Your task to perform on an android device: open app "DuckDuckGo Privacy Browser" Image 0: 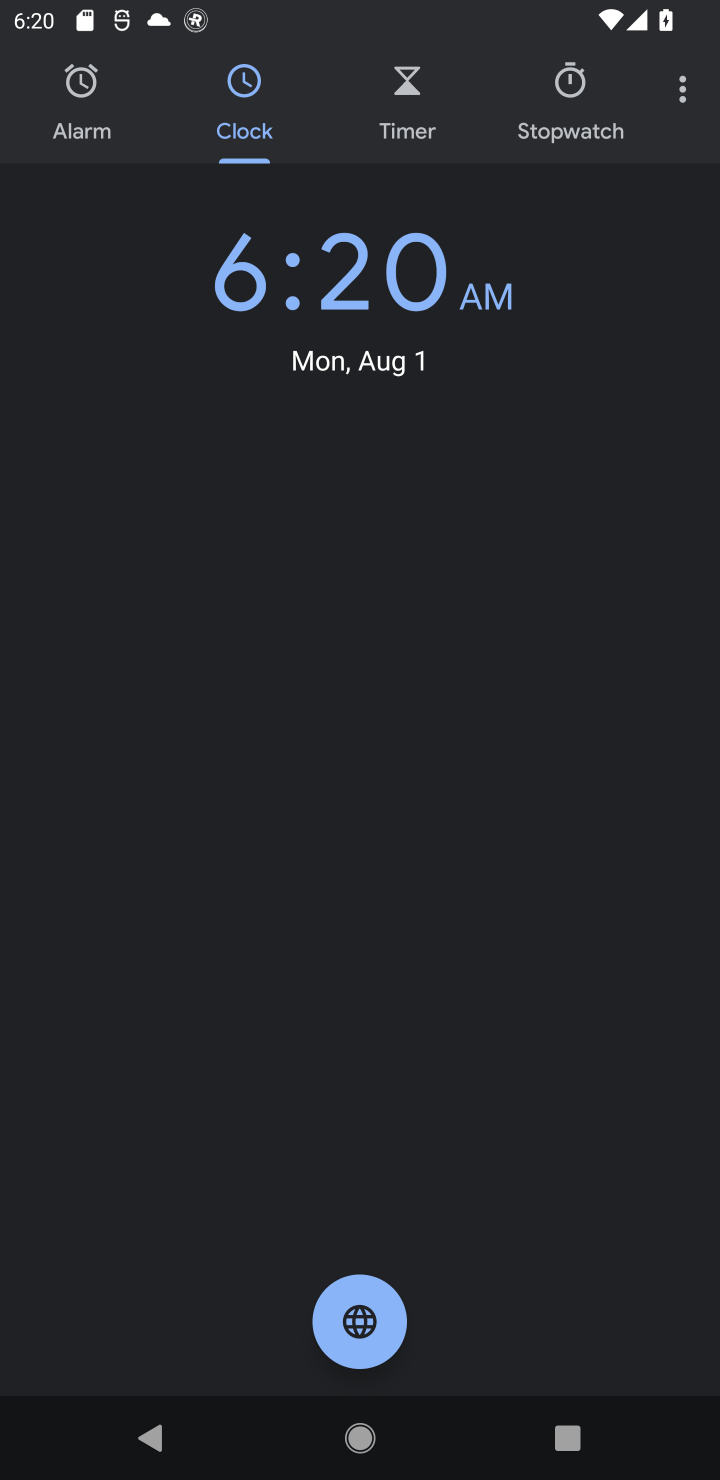
Step 0: press home button
Your task to perform on an android device: open app "DuckDuckGo Privacy Browser" Image 1: 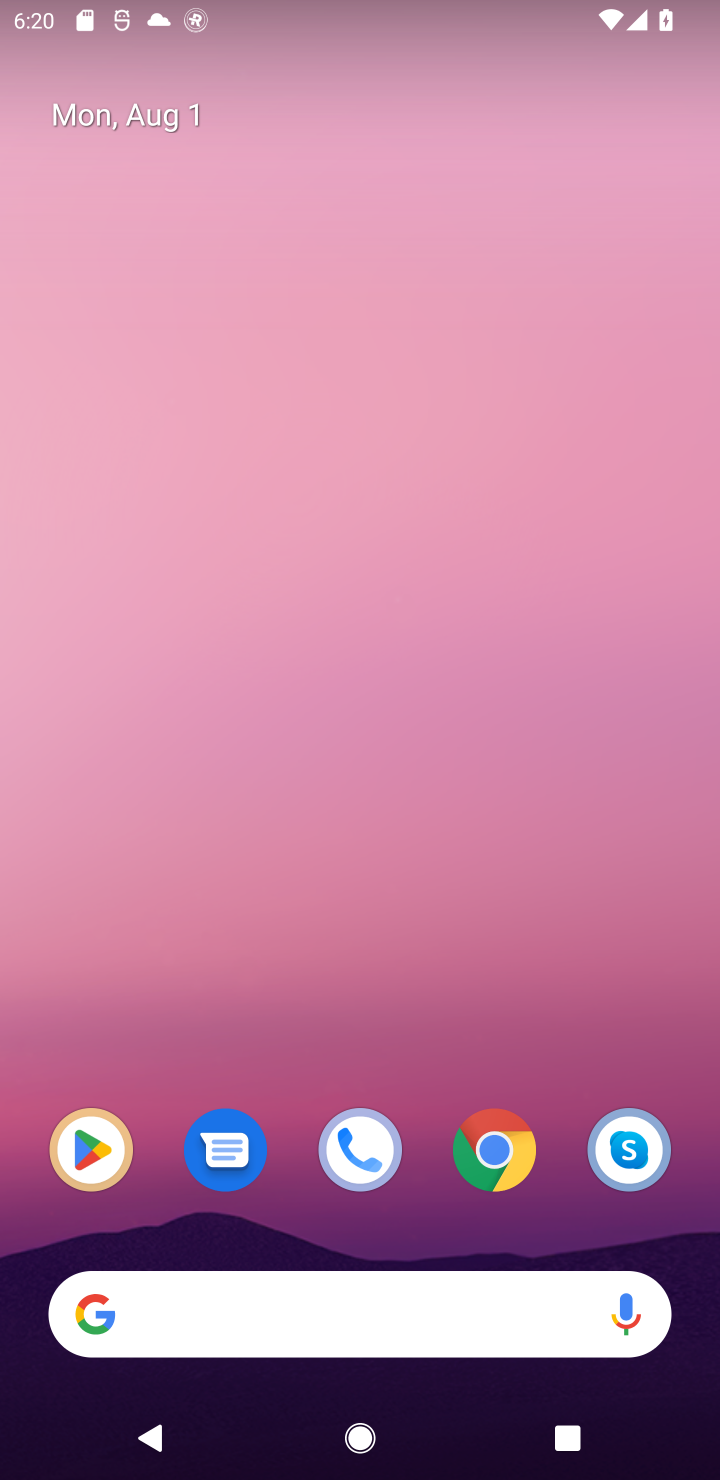
Step 1: drag from (296, 1252) to (414, 210)
Your task to perform on an android device: open app "DuckDuckGo Privacy Browser" Image 2: 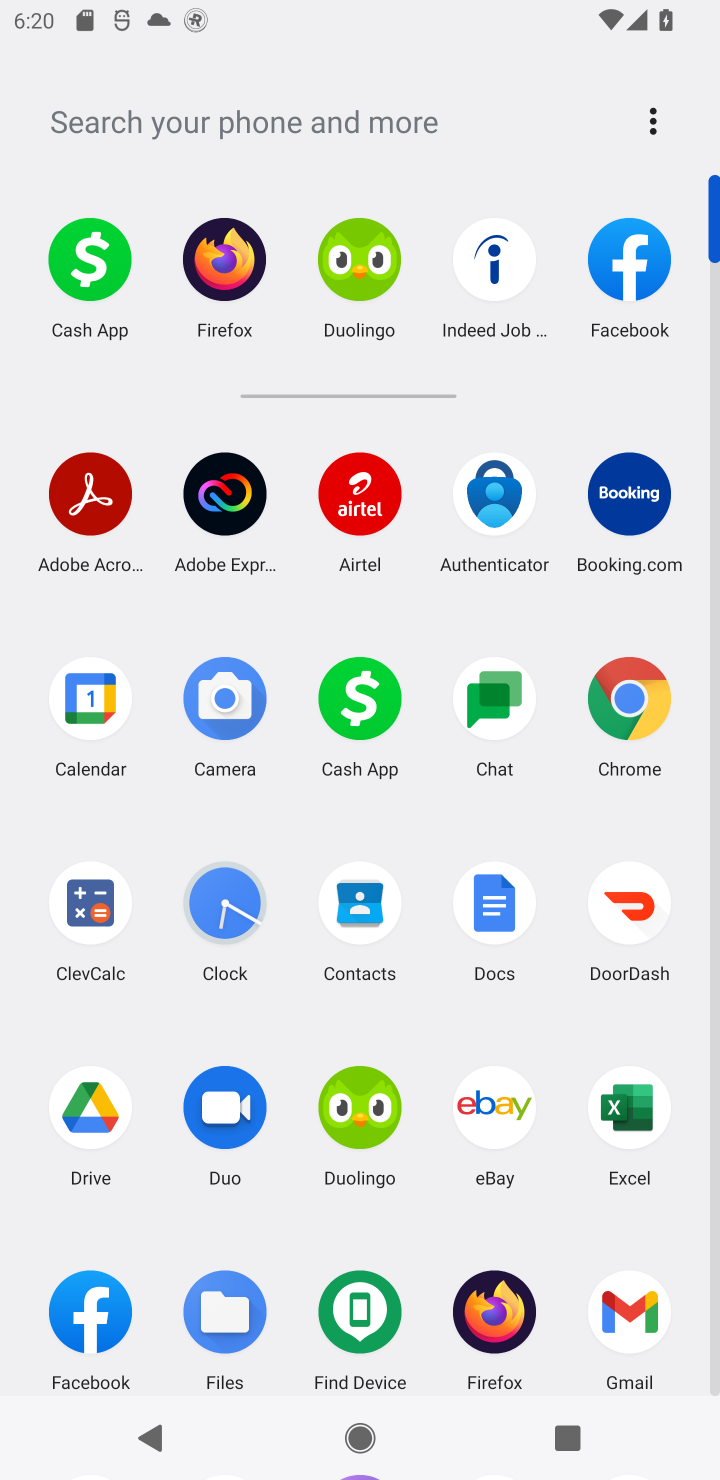
Step 2: click (365, 127)
Your task to perform on an android device: open app "DuckDuckGo Privacy Browser" Image 3: 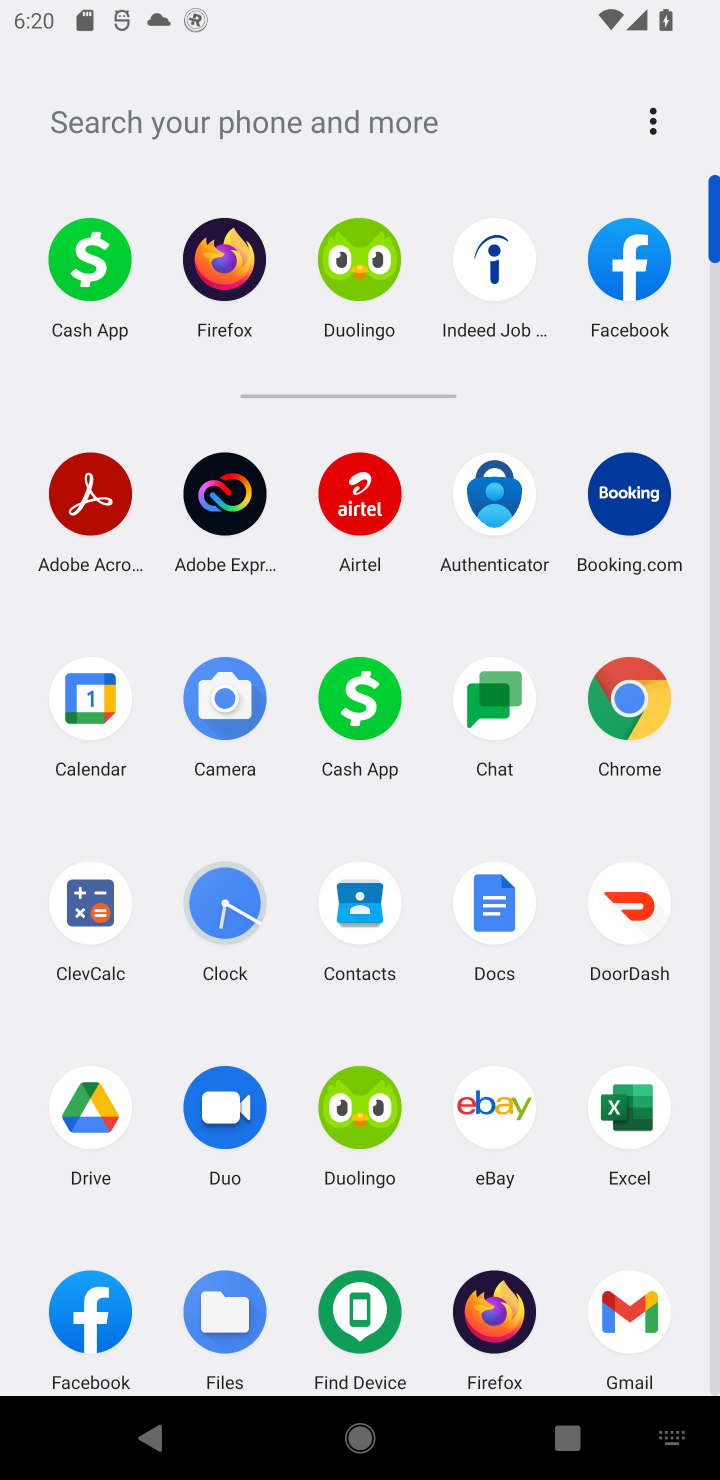
Step 3: type "duck duck go"
Your task to perform on an android device: open app "DuckDuckGo Privacy Browser" Image 4: 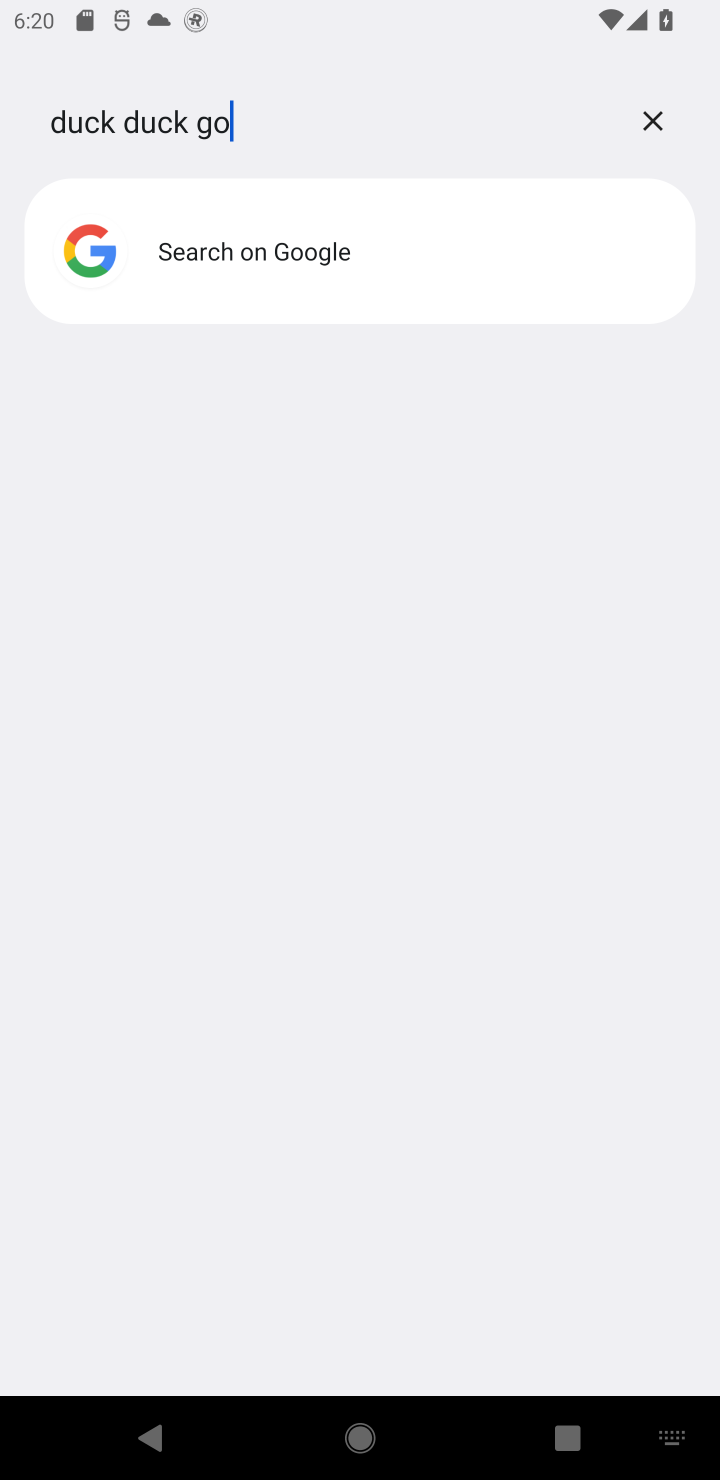
Step 4: click (152, 145)
Your task to perform on an android device: open app "DuckDuckGo Privacy Browser" Image 5: 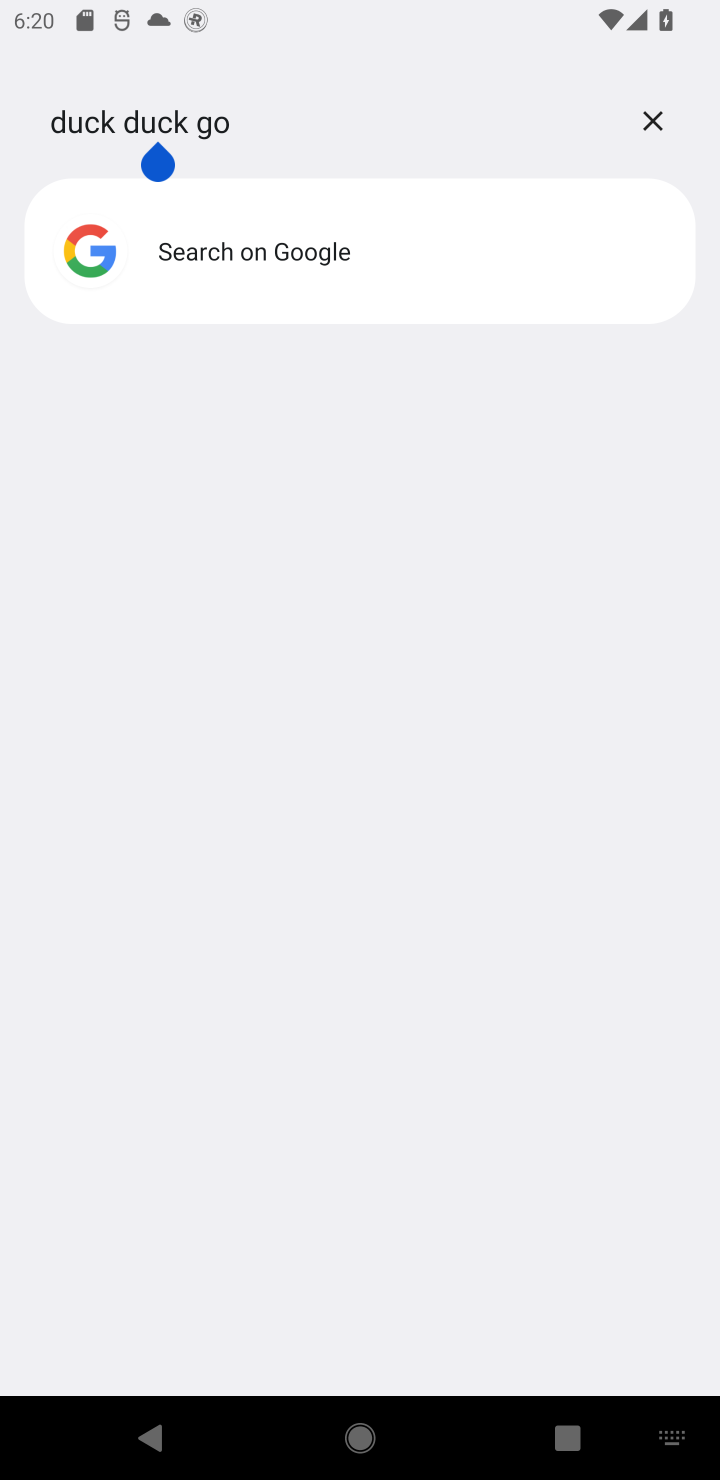
Step 5: task complete